Your task to perform on an android device: snooze an email in the gmail app Image 0: 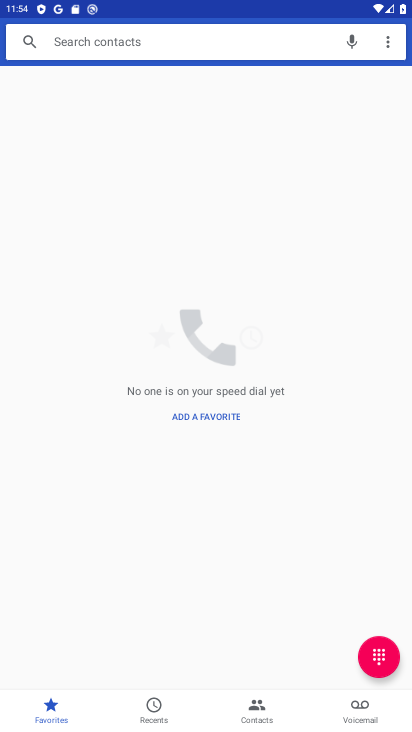
Step 0: click (119, 632)
Your task to perform on an android device: snooze an email in the gmail app Image 1: 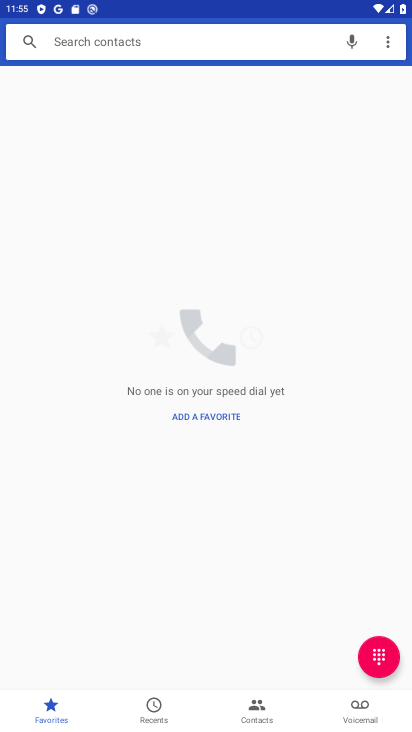
Step 1: press home button
Your task to perform on an android device: snooze an email in the gmail app Image 2: 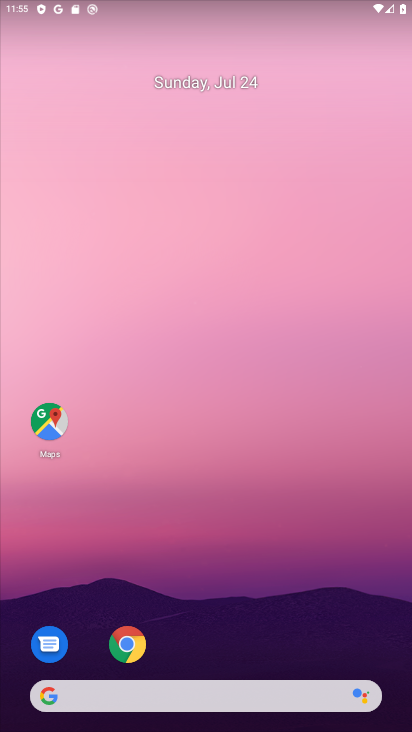
Step 2: drag from (209, 657) to (241, 75)
Your task to perform on an android device: snooze an email in the gmail app Image 3: 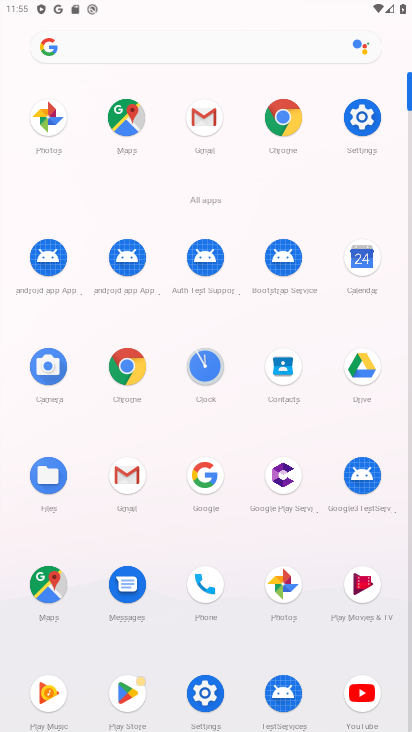
Step 3: click (192, 111)
Your task to perform on an android device: snooze an email in the gmail app Image 4: 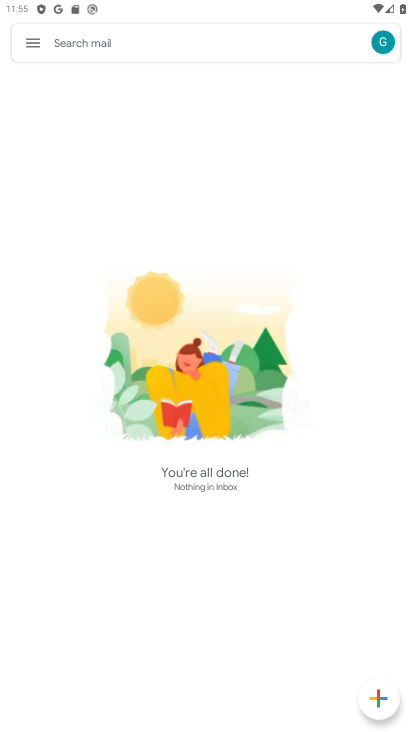
Step 4: click (36, 45)
Your task to perform on an android device: snooze an email in the gmail app Image 5: 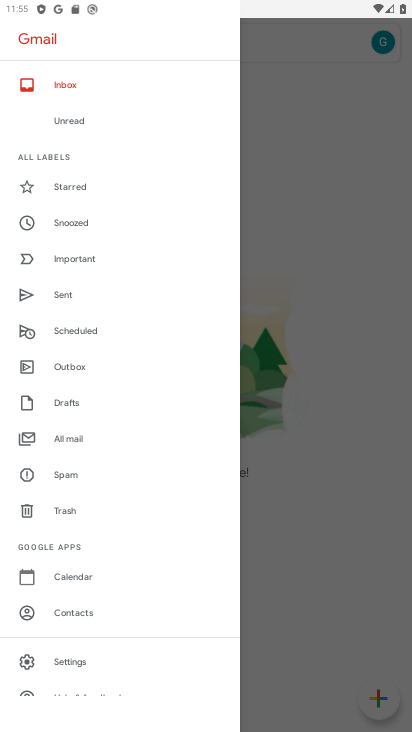
Step 5: click (106, 232)
Your task to perform on an android device: snooze an email in the gmail app Image 6: 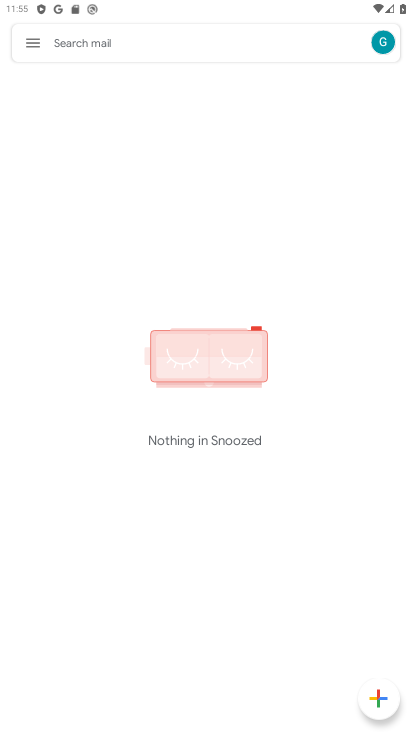
Step 6: task complete